Your task to perform on an android device: Open Youtube and go to "Your channel" Image 0: 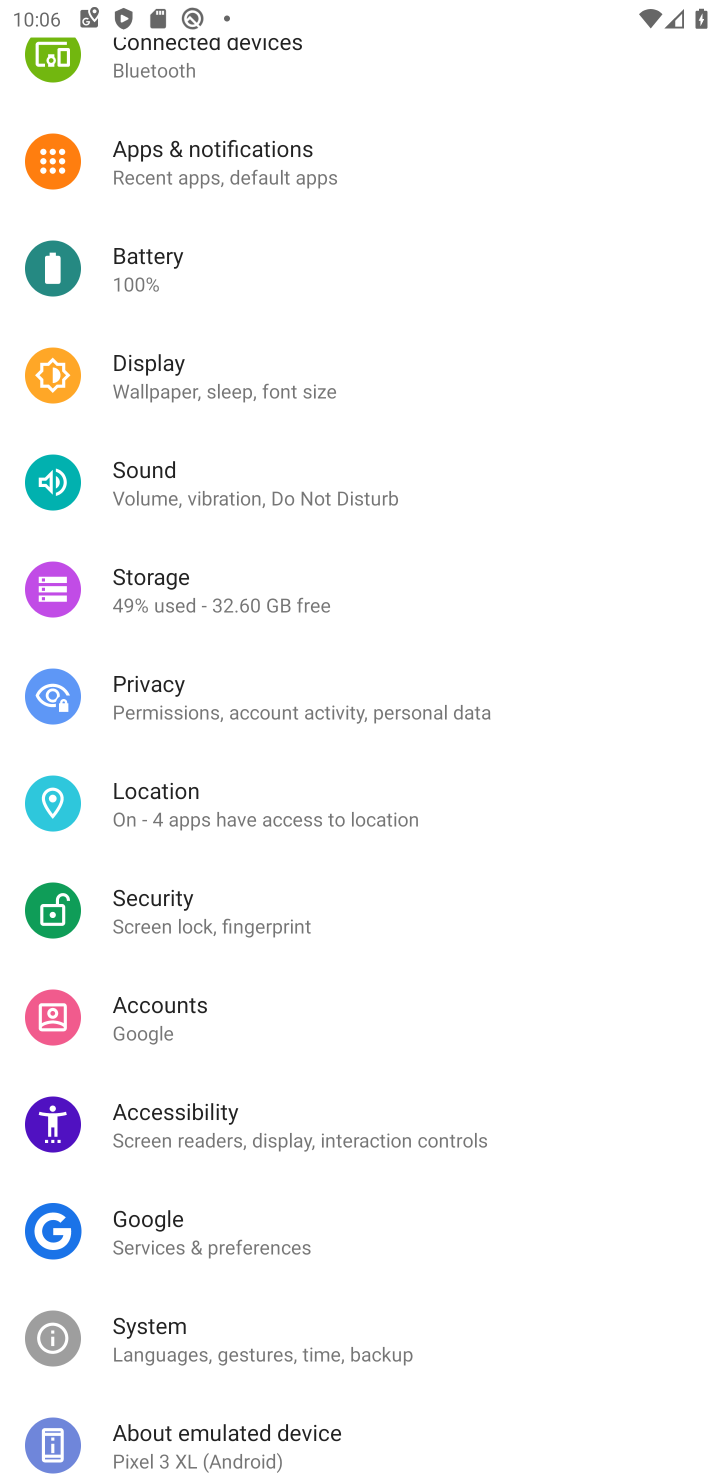
Step 0: press home button
Your task to perform on an android device: Open Youtube and go to "Your channel" Image 1: 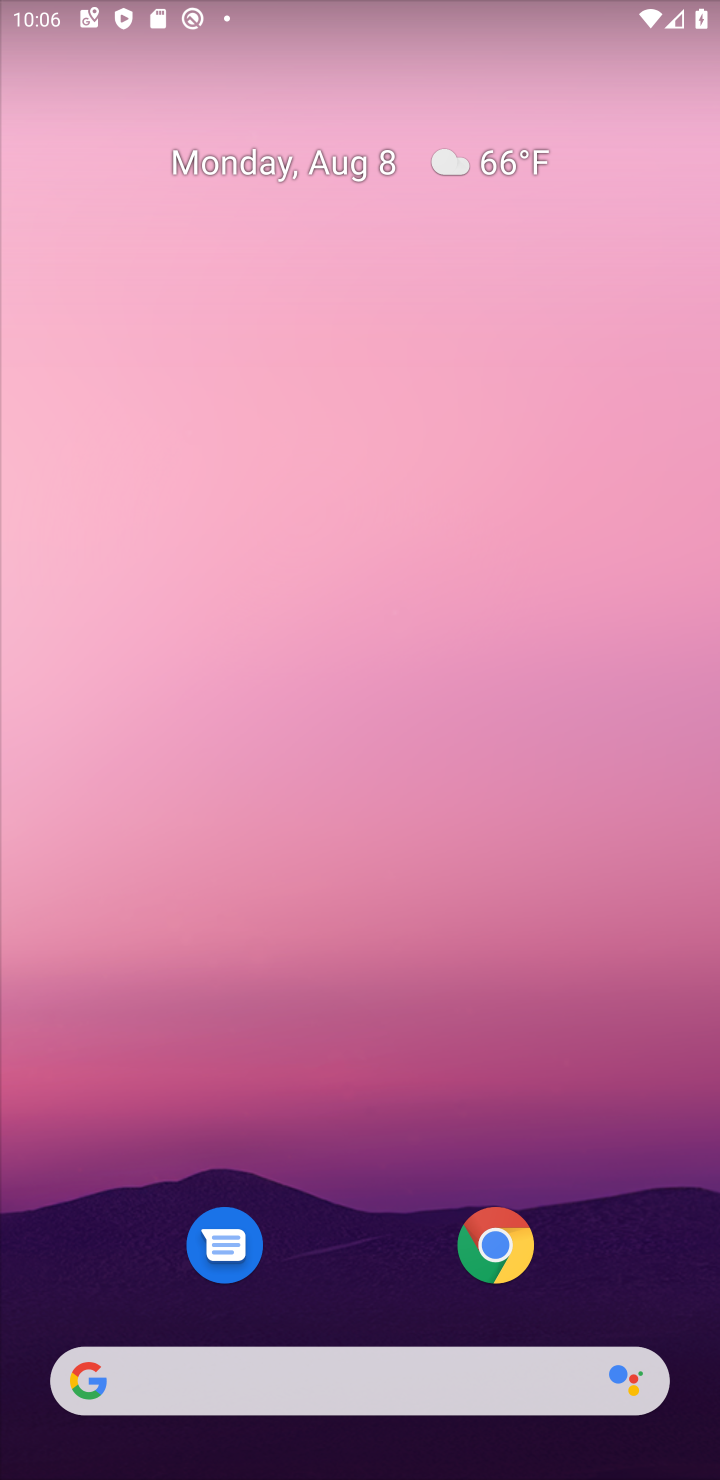
Step 1: drag from (352, 1167) to (307, 305)
Your task to perform on an android device: Open Youtube and go to "Your channel" Image 2: 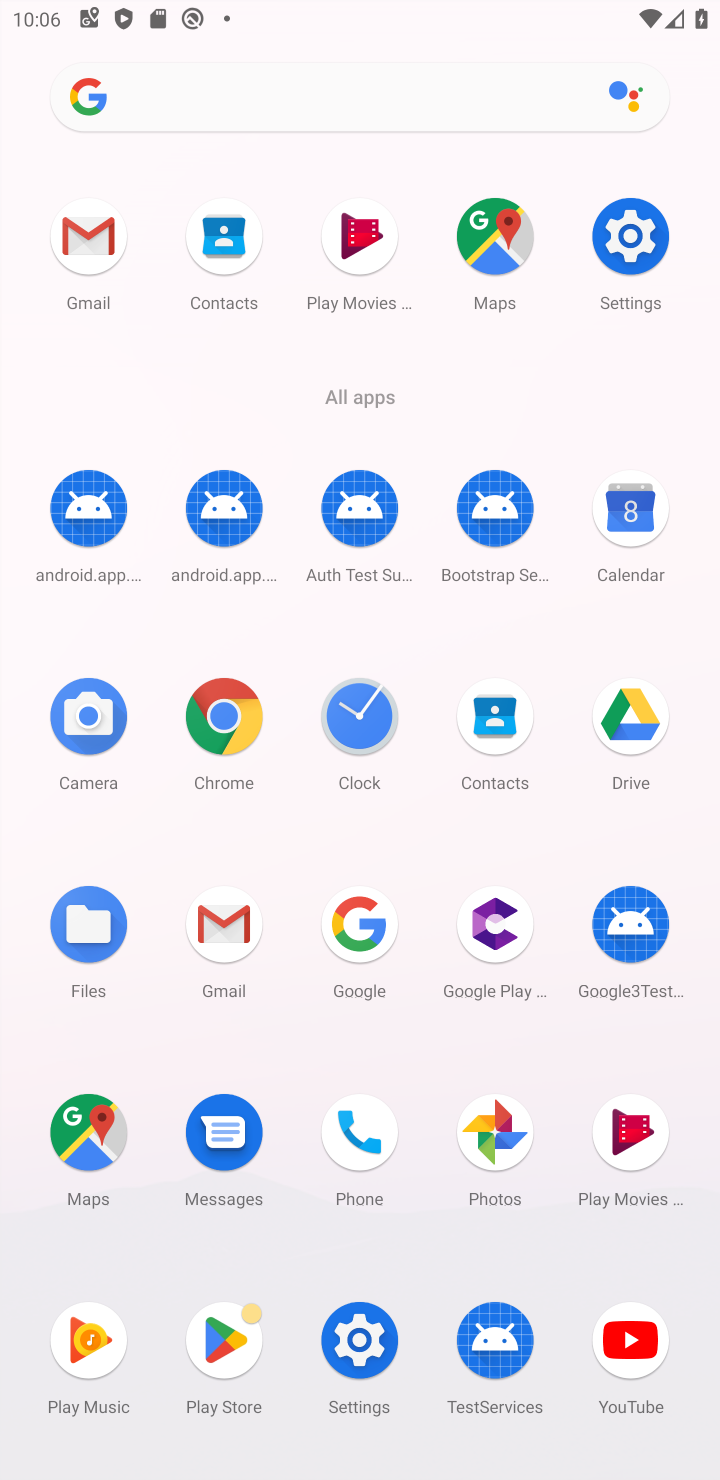
Step 2: click (629, 1339)
Your task to perform on an android device: Open Youtube and go to "Your channel" Image 3: 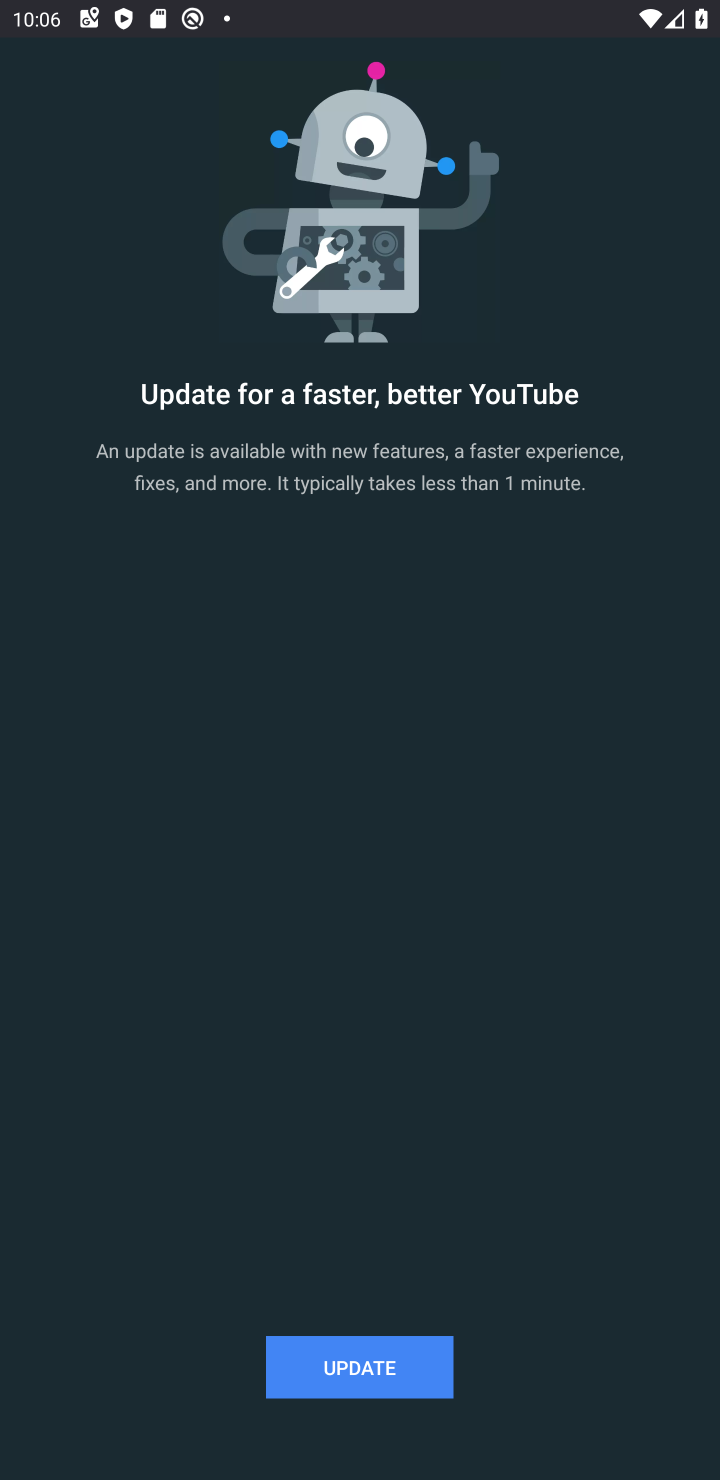
Step 3: click (359, 1372)
Your task to perform on an android device: Open Youtube and go to "Your channel" Image 4: 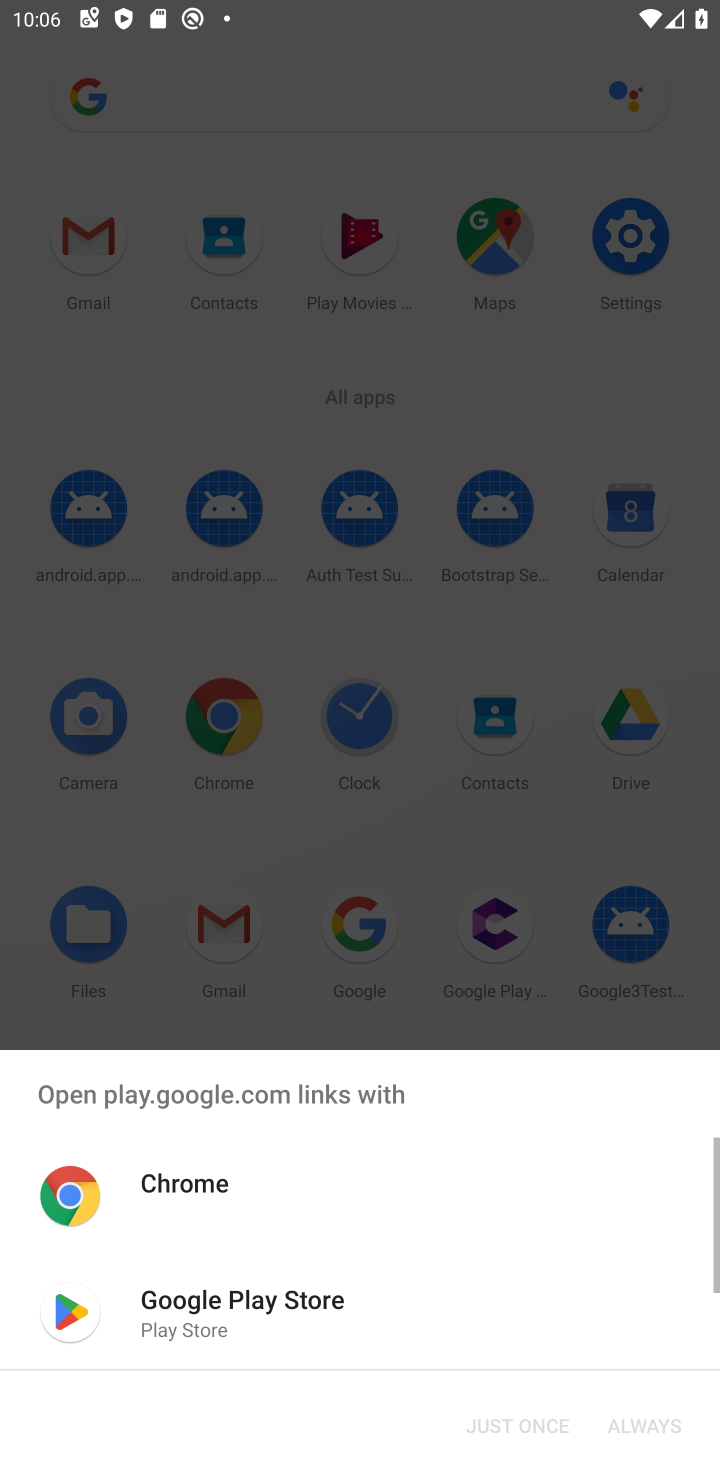
Step 4: click (229, 1305)
Your task to perform on an android device: Open Youtube and go to "Your channel" Image 5: 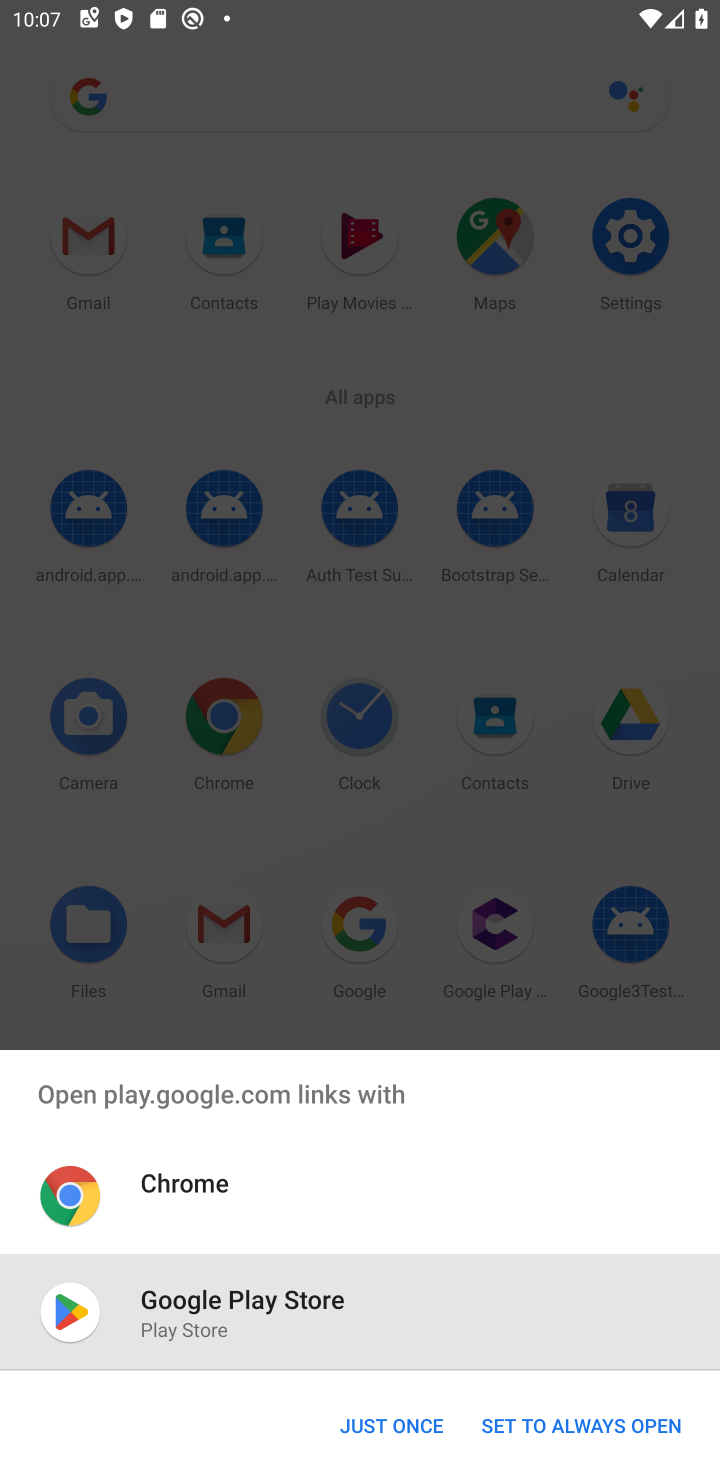
Step 5: click (411, 1418)
Your task to perform on an android device: Open Youtube and go to "Your channel" Image 6: 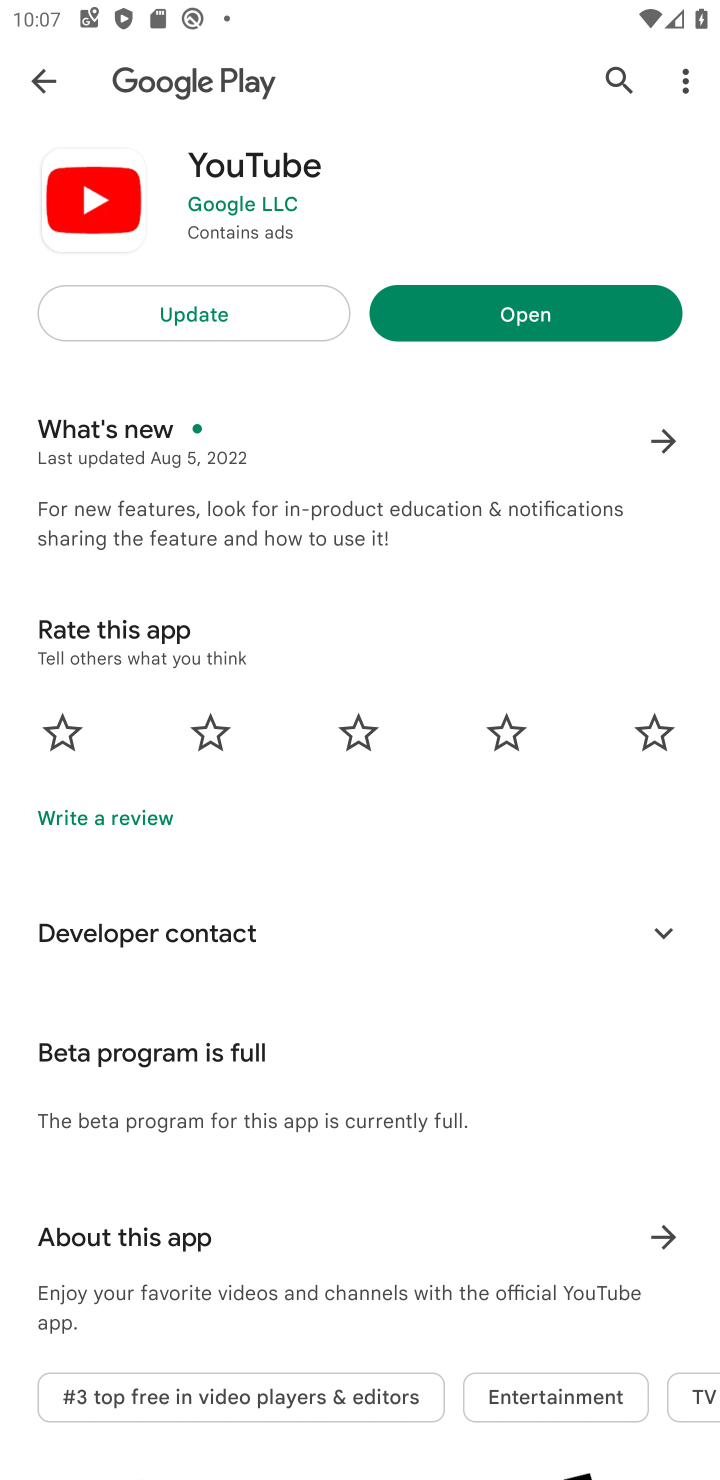
Step 6: click (196, 310)
Your task to perform on an android device: Open Youtube and go to "Your channel" Image 7: 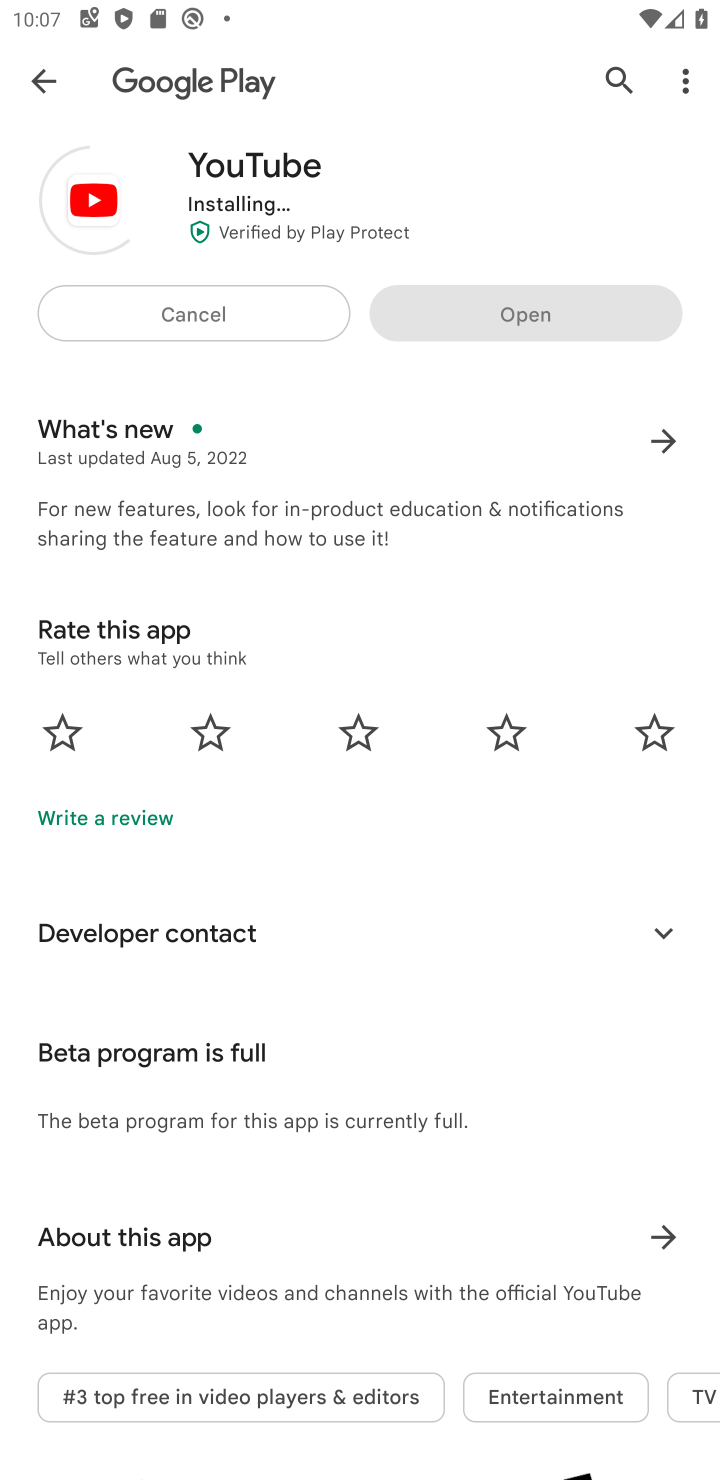
Step 7: click (537, 493)
Your task to perform on an android device: Open Youtube and go to "Your channel" Image 8: 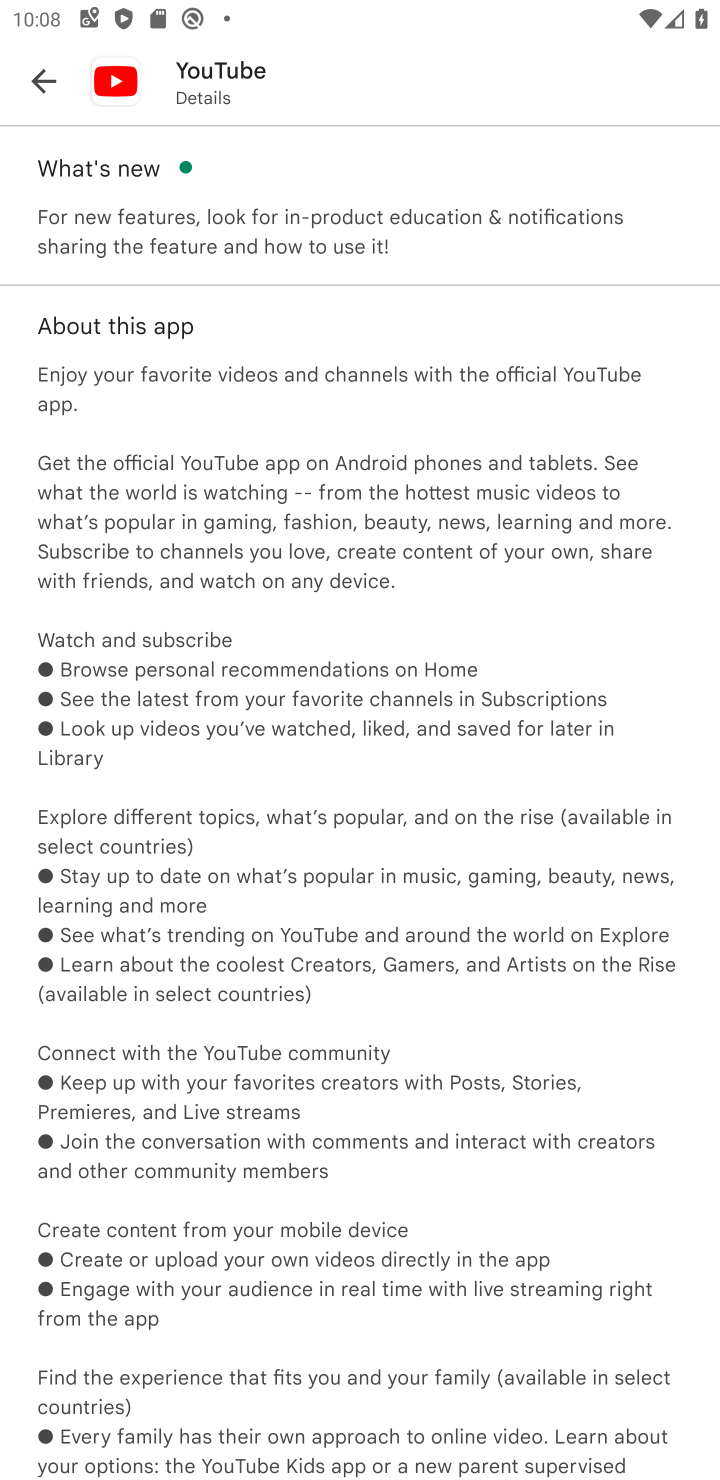
Step 8: drag from (496, 1202) to (465, 397)
Your task to perform on an android device: Open Youtube and go to "Your channel" Image 9: 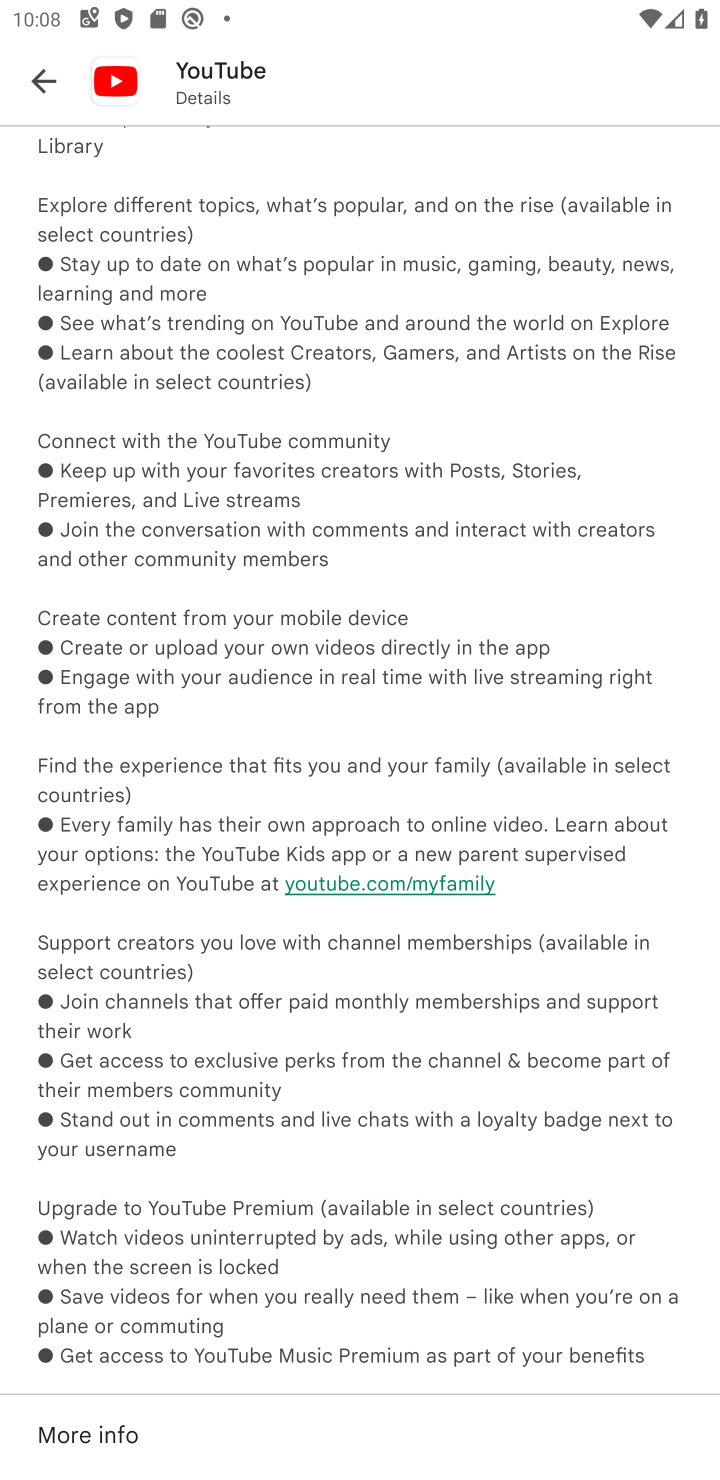
Step 9: click (481, 540)
Your task to perform on an android device: Open Youtube and go to "Your channel" Image 10: 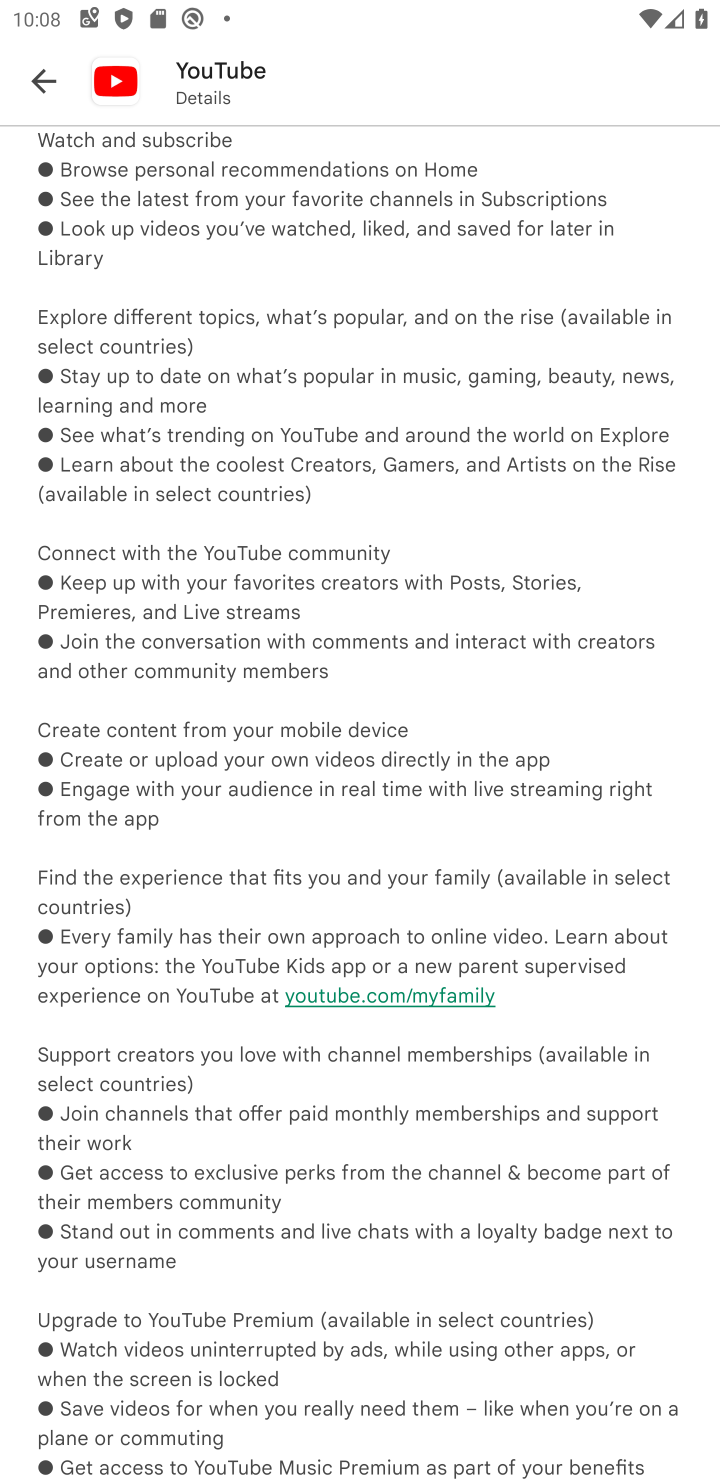
Step 10: drag from (459, 1287) to (492, 238)
Your task to perform on an android device: Open Youtube and go to "Your channel" Image 11: 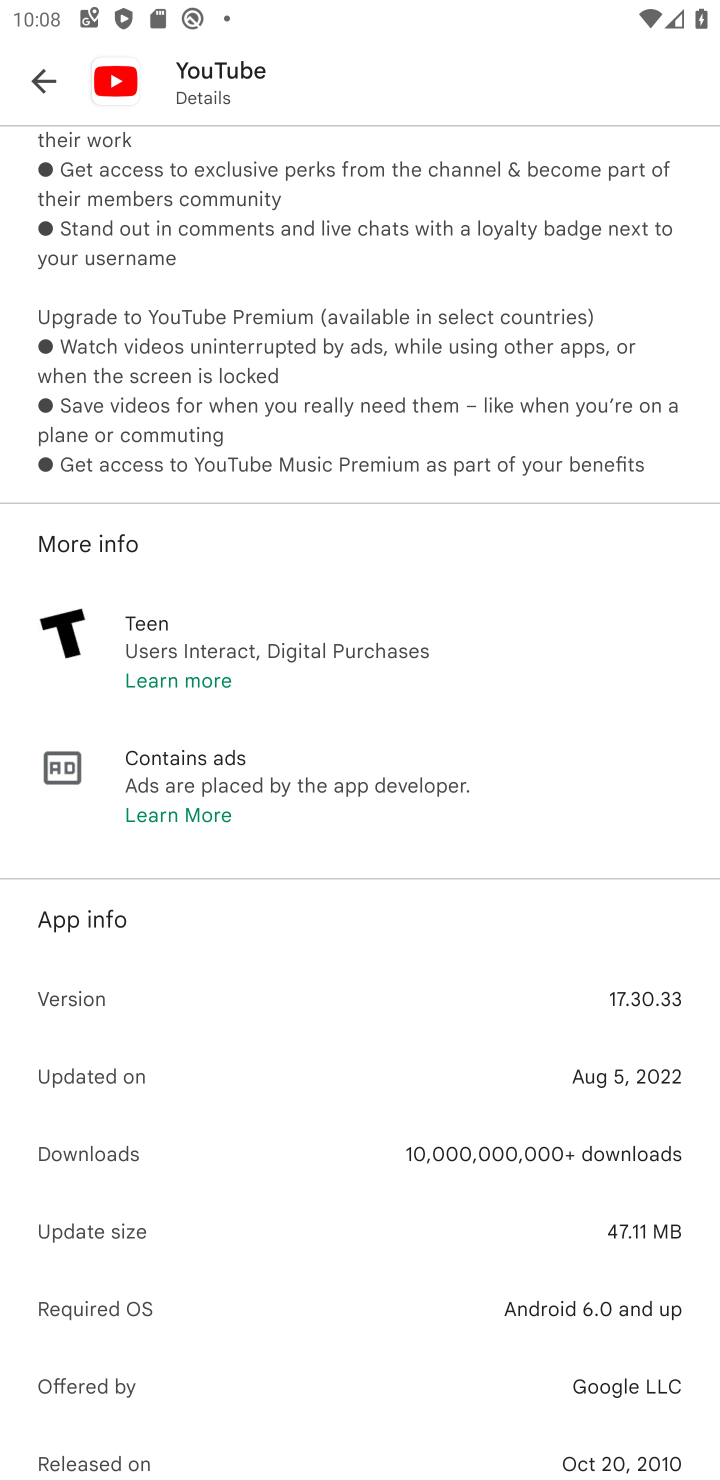
Step 11: click (50, 72)
Your task to perform on an android device: Open Youtube and go to "Your channel" Image 12: 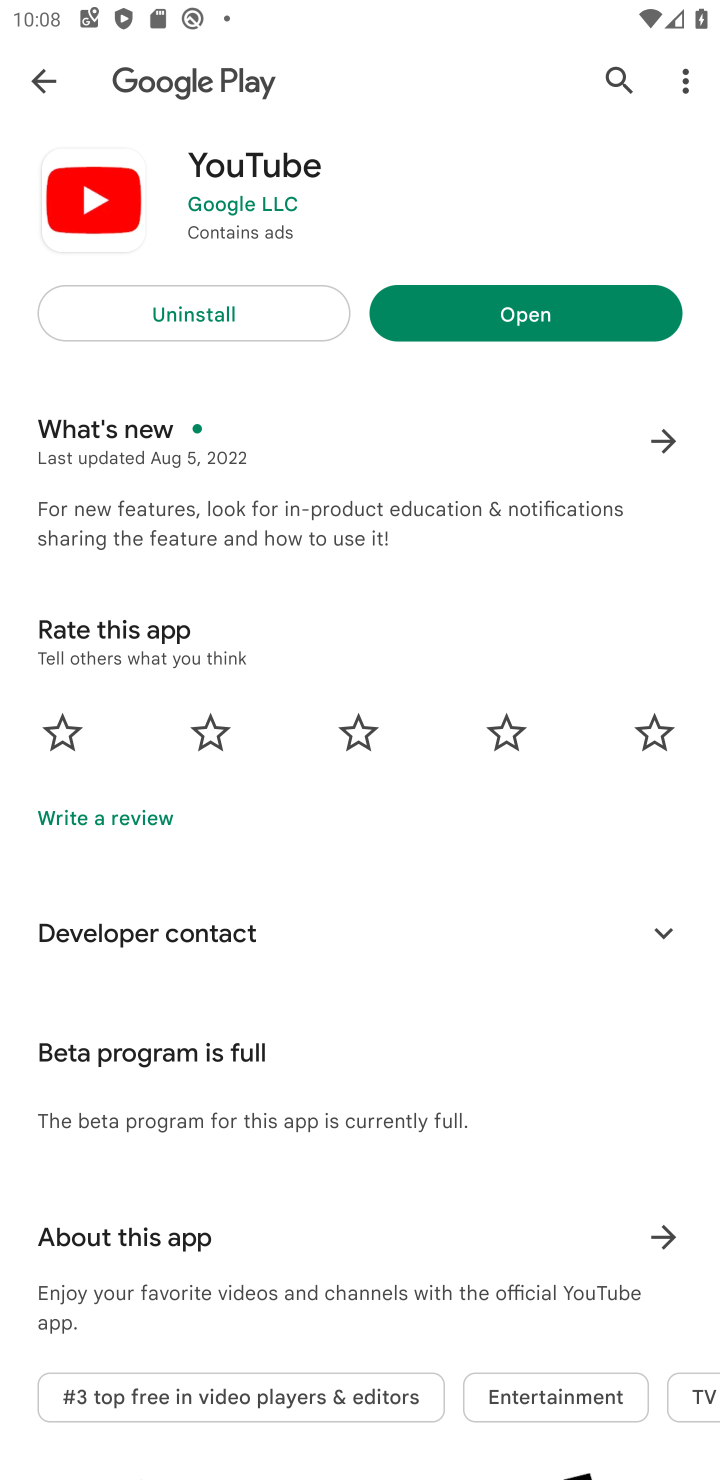
Step 12: click (481, 302)
Your task to perform on an android device: Open Youtube and go to "Your channel" Image 13: 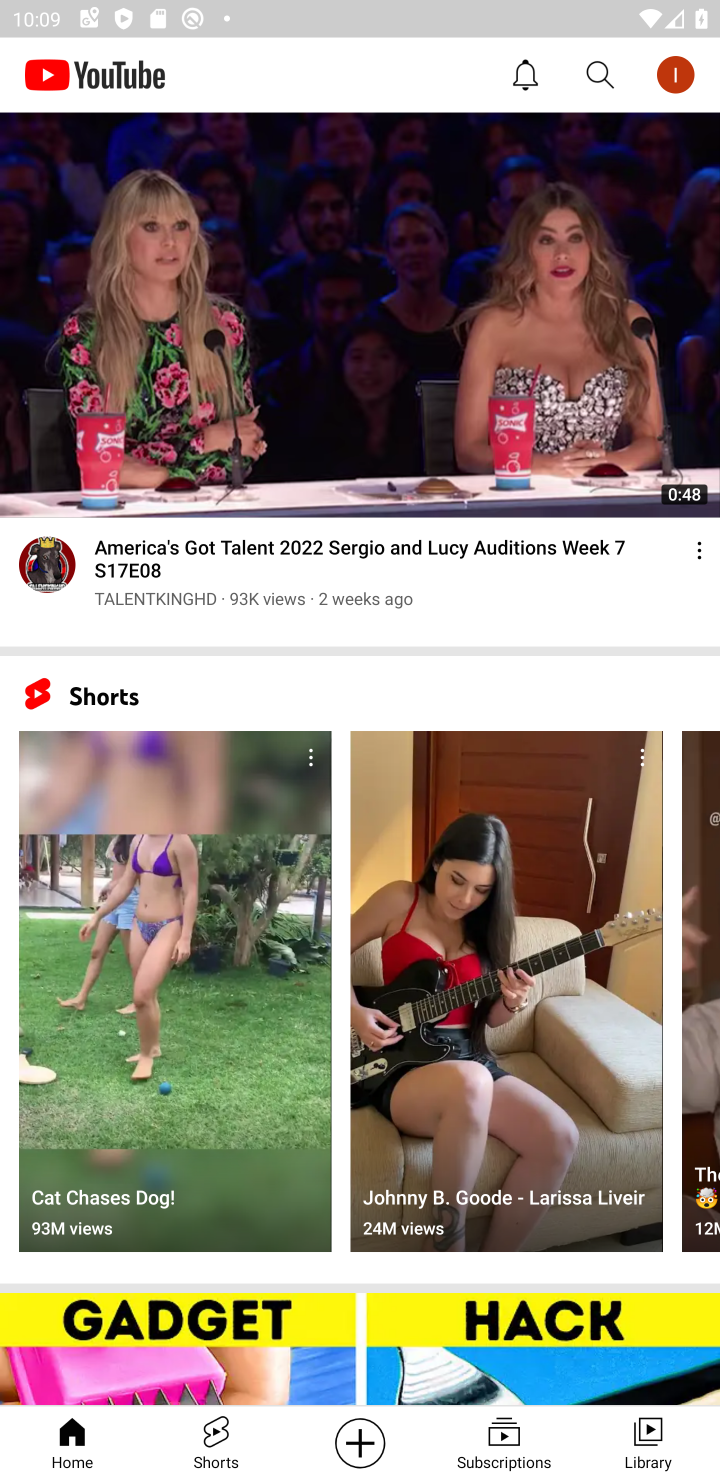
Step 13: click (678, 77)
Your task to perform on an android device: Open Youtube and go to "Your channel" Image 14: 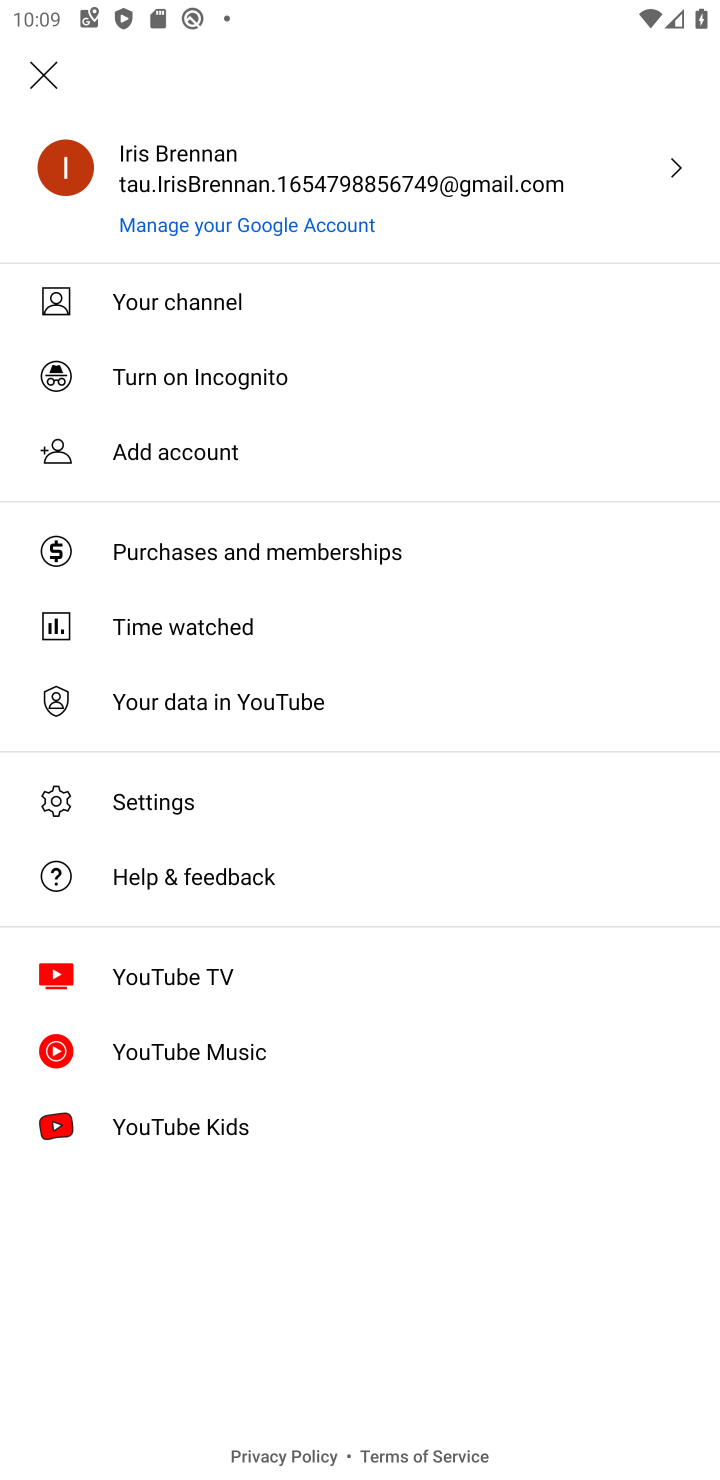
Step 14: click (195, 294)
Your task to perform on an android device: Open Youtube and go to "Your channel" Image 15: 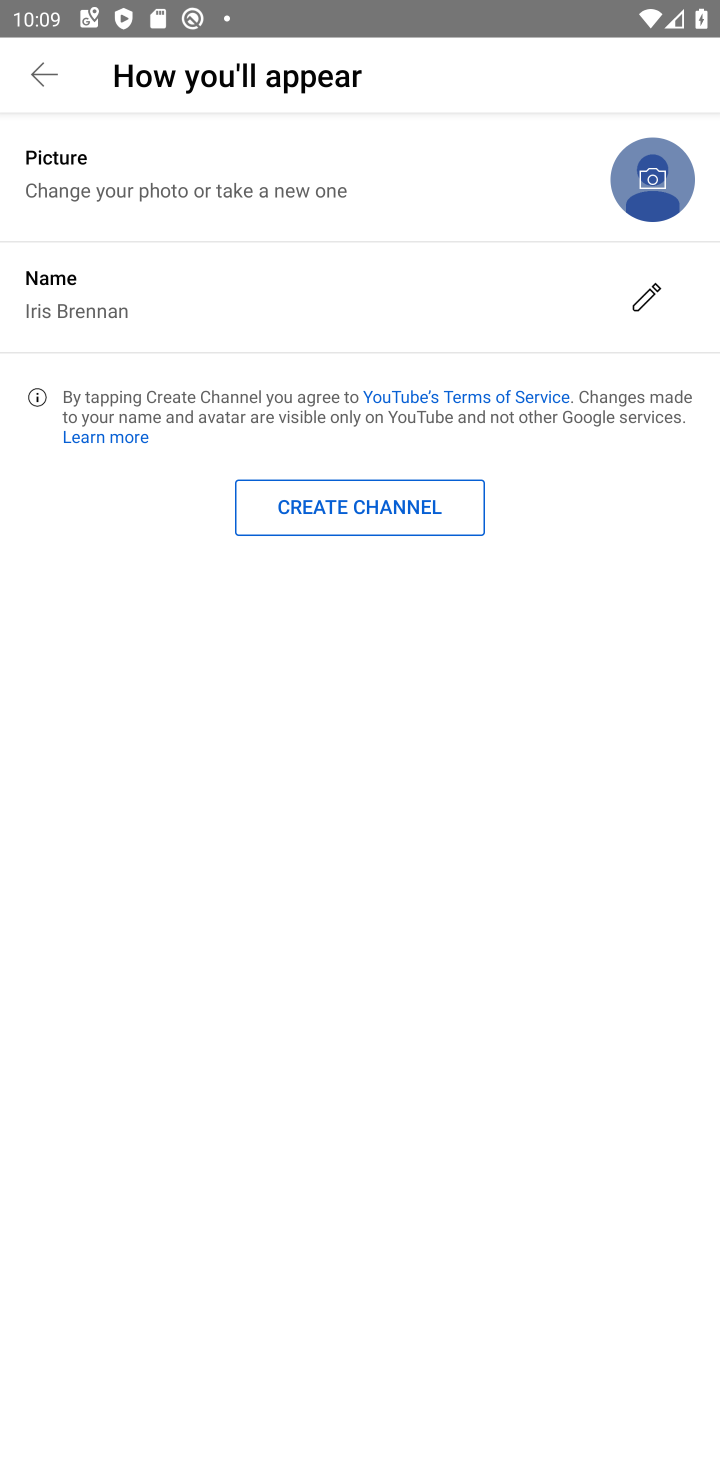
Step 15: task complete